Your task to perform on an android device: turn on improve location accuracy Image 0: 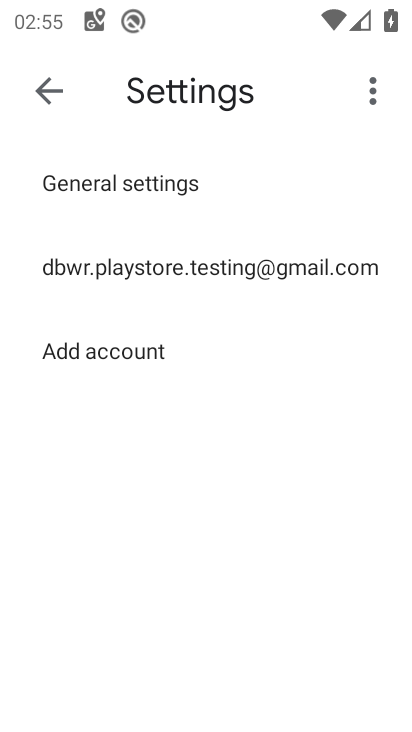
Step 0: click (400, 491)
Your task to perform on an android device: turn on improve location accuracy Image 1: 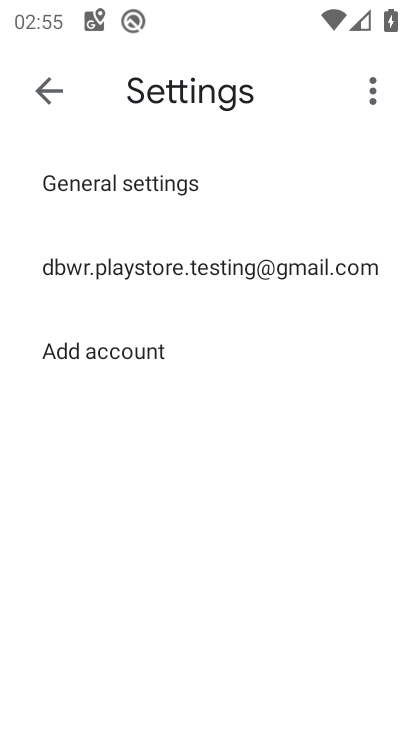
Step 1: press home button
Your task to perform on an android device: turn on improve location accuracy Image 2: 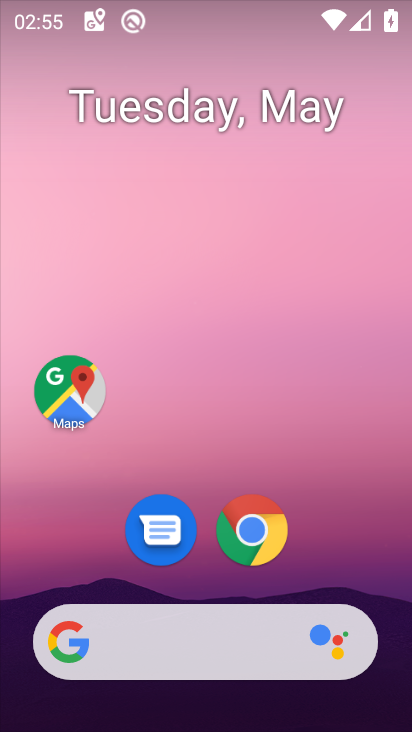
Step 2: drag from (91, 499) to (309, 111)
Your task to perform on an android device: turn on improve location accuracy Image 3: 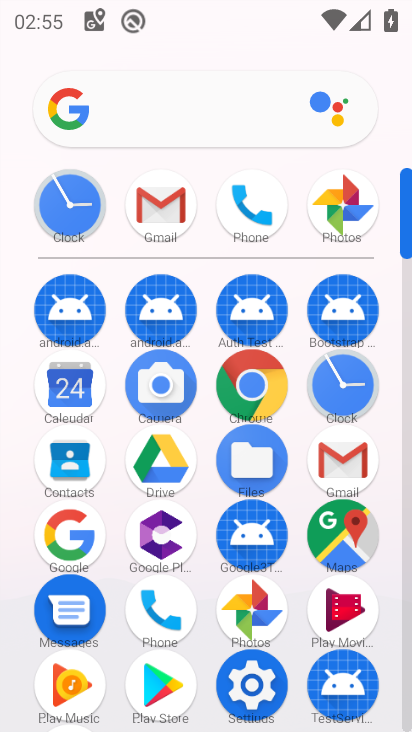
Step 3: click (232, 677)
Your task to perform on an android device: turn on improve location accuracy Image 4: 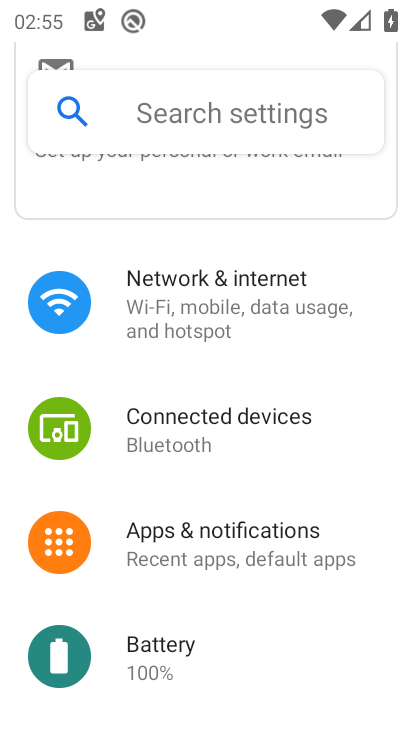
Step 4: drag from (9, 619) to (293, 152)
Your task to perform on an android device: turn on improve location accuracy Image 5: 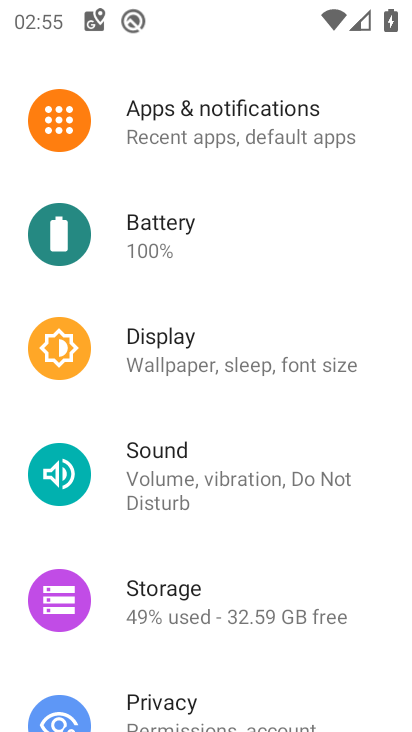
Step 5: drag from (16, 694) to (299, 313)
Your task to perform on an android device: turn on improve location accuracy Image 6: 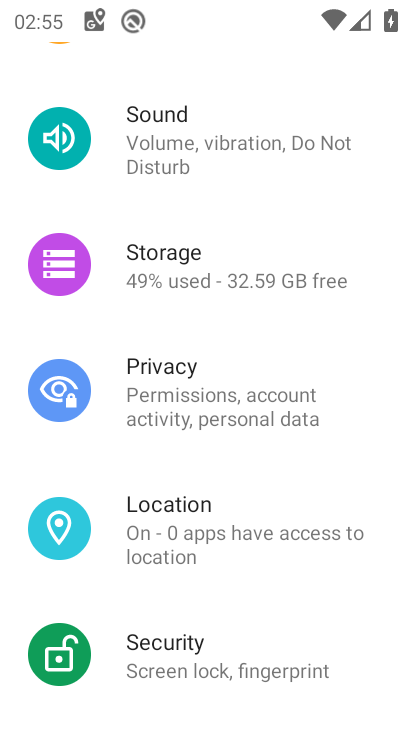
Step 6: click (257, 538)
Your task to perform on an android device: turn on improve location accuracy Image 7: 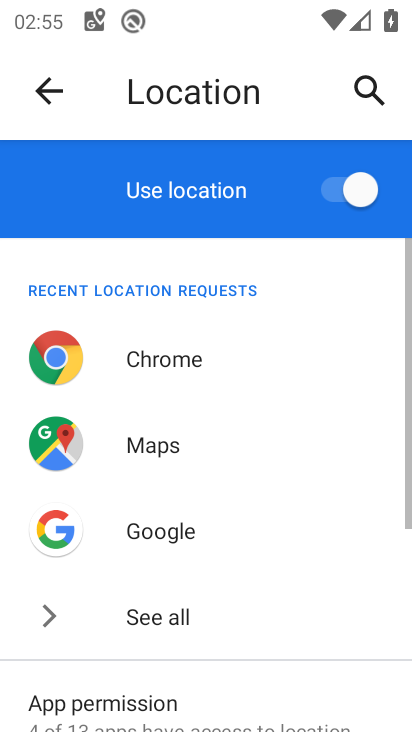
Step 7: drag from (26, 625) to (282, 217)
Your task to perform on an android device: turn on improve location accuracy Image 8: 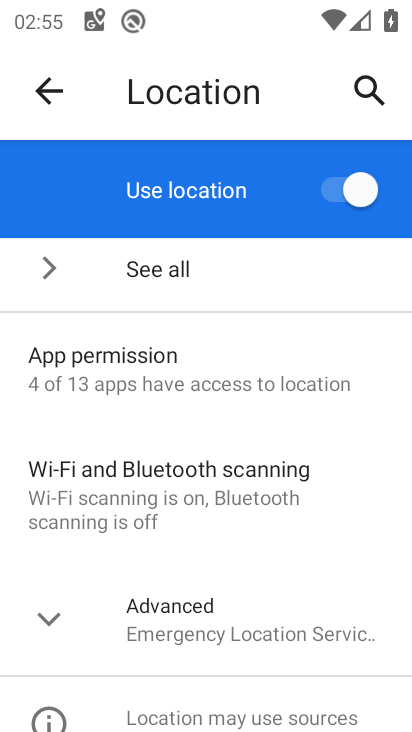
Step 8: drag from (55, 614) to (263, 303)
Your task to perform on an android device: turn on improve location accuracy Image 9: 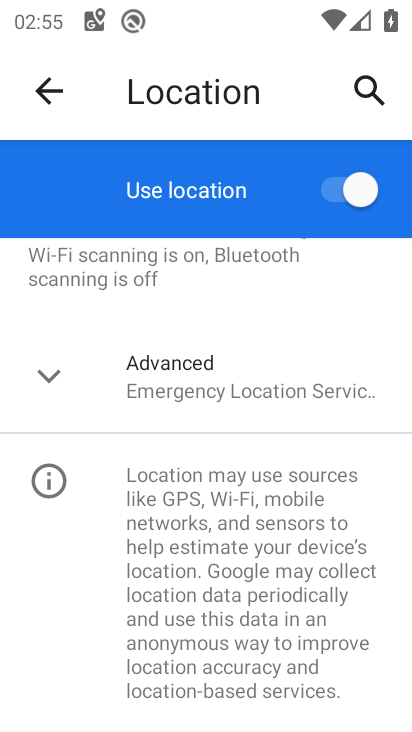
Step 9: click (249, 380)
Your task to perform on an android device: turn on improve location accuracy Image 10: 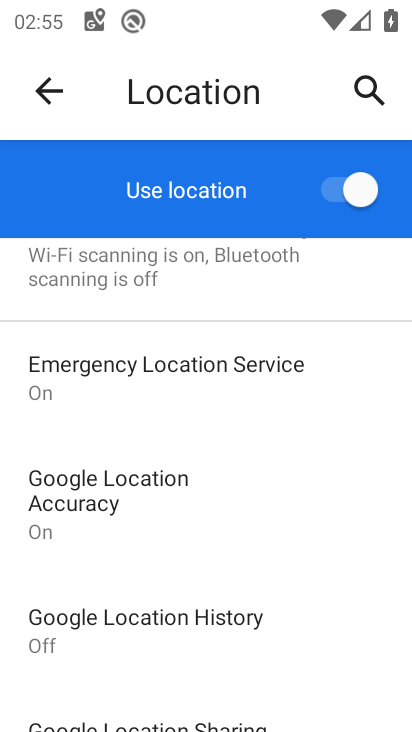
Step 10: click (46, 495)
Your task to perform on an android device: turn on improve location accuracy Image 11: 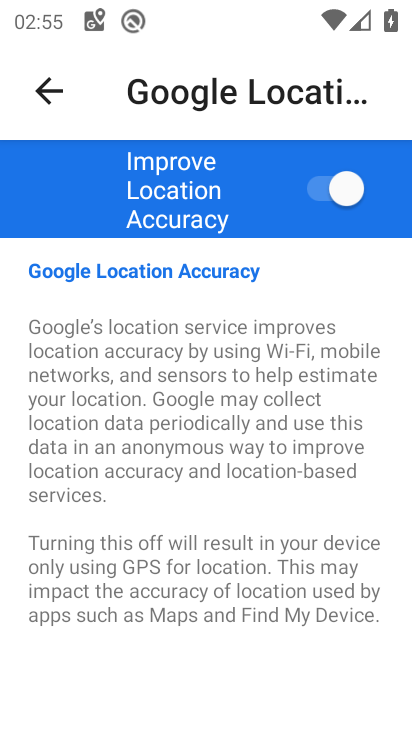
Step 11: click (362, 184)
Your task to perform on an android device: turn on improve location accuracy Image 12: 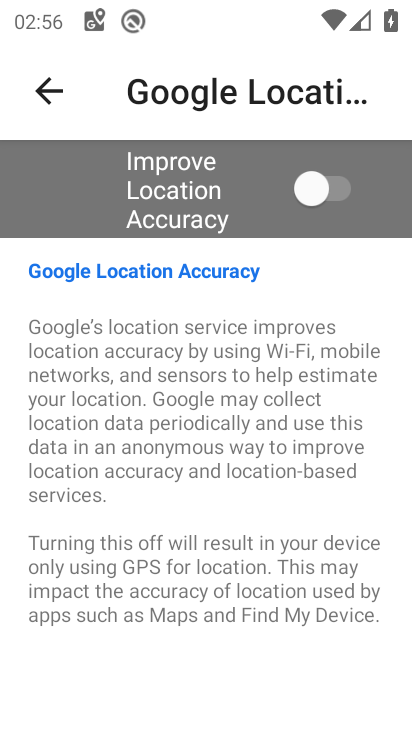
Step 12: task complete